Your task to perform on an android device: turn off javascript in the chrome app Image 0: 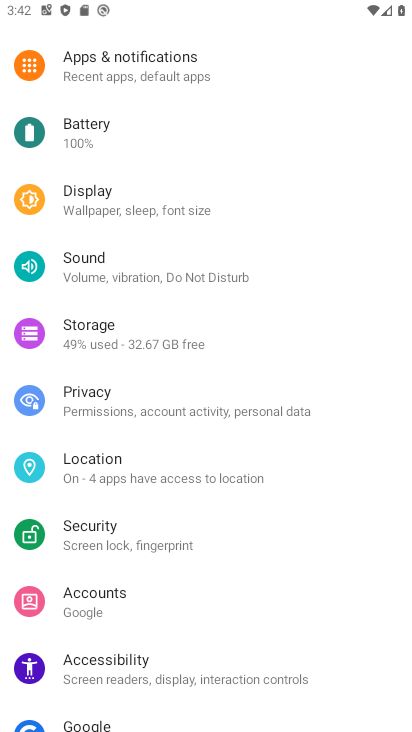
Step 0: press home button
Your task to perform on an android device: turn off javascript in the chrome app Image 1: 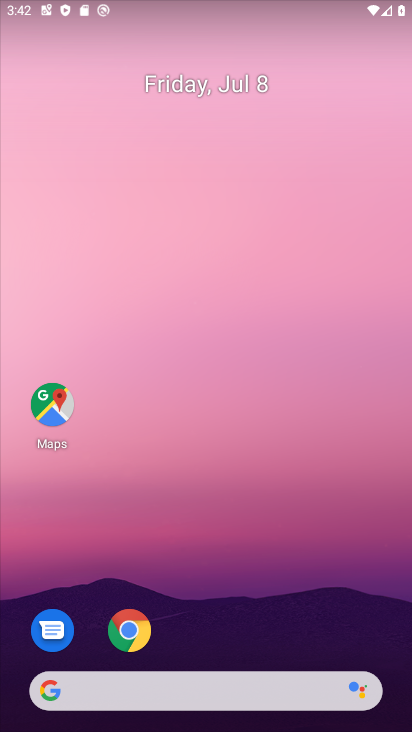
Step 1: click (116, 634)
Your task to perform on an android device: turn off javascript in the chrome app Image 2: 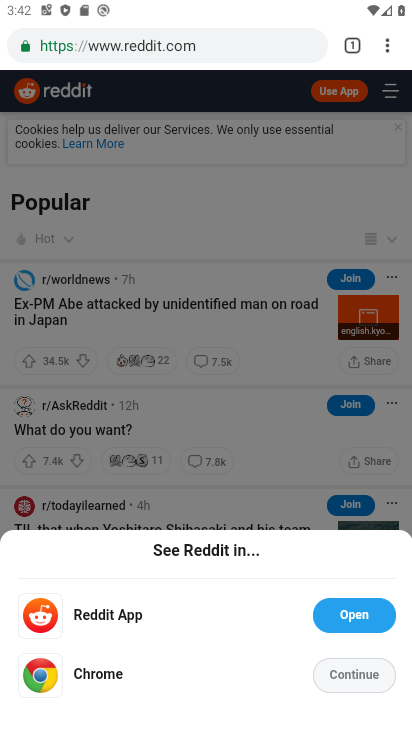
Step 2: click (386, 52)
Your task to perform on an android device: turn off javascript in the chrome app Image 3: 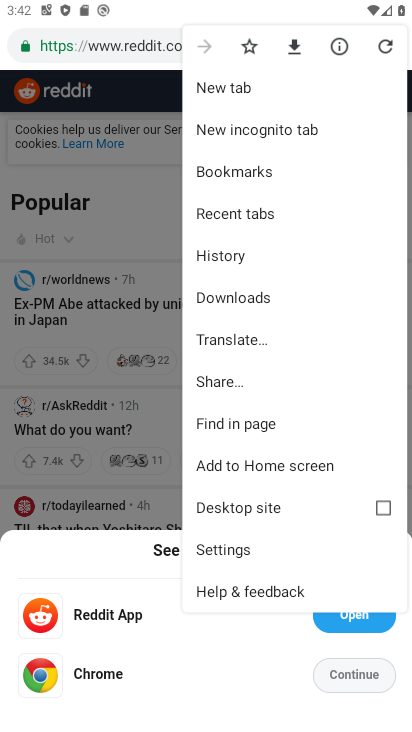
Step 3: click (227, 565)
Your task to perform on an android device: turn off javascript in the chrome app Image 4: 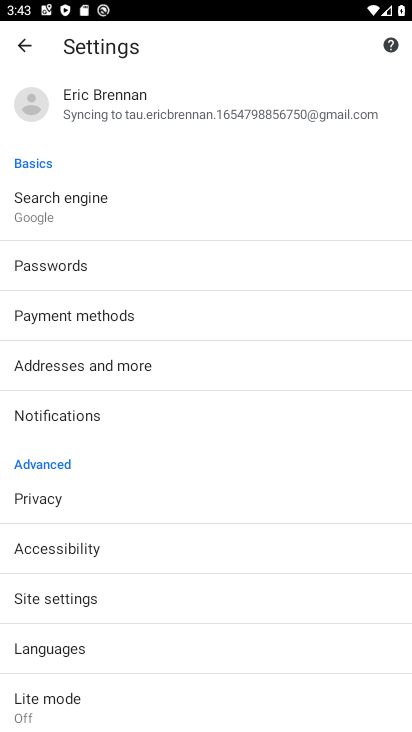
Step 4: click (41, 601)
Your task to perform on an android device: turn off javascript in the chrome app Image 5: 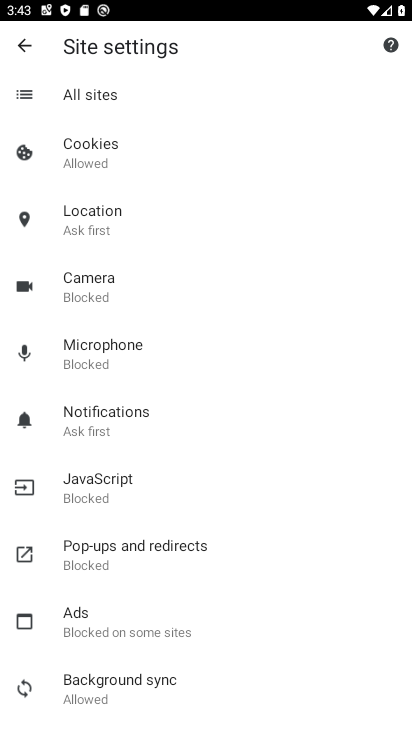
Step 5: click (113, 491)
Your task to perform on an android device: turn off javascript in the chrome app Image 6: 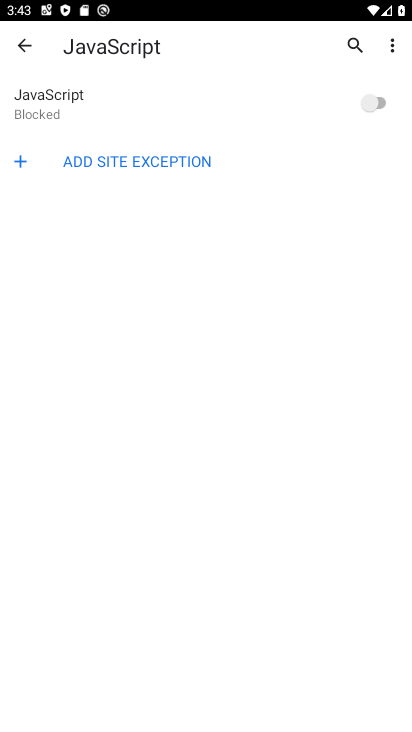
Step 6: task complete